Your task to perform on an android device: clear all cookies in the chrome app Image 0: 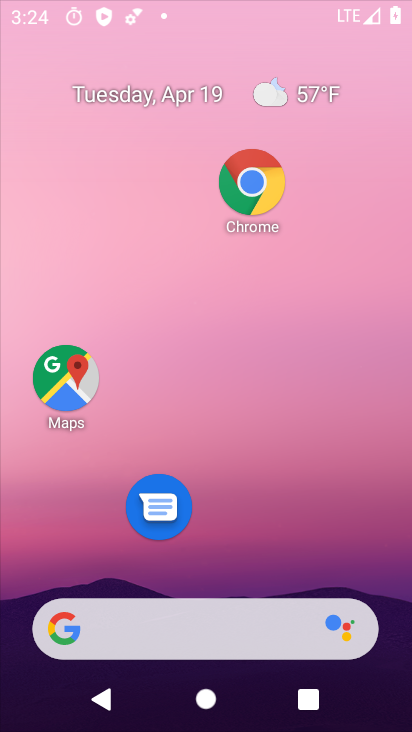
Step 0: drag from (334, 541) to (395, 84)
Your task to perform on an android device: clear all cookies in the chrome app Image 1: 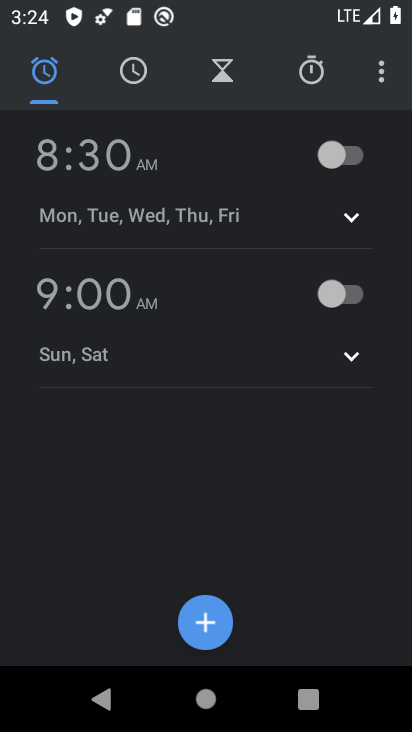
Step 1: press home button
Your task to perform on an android device: clear all cookies in the chrome app Image 2: 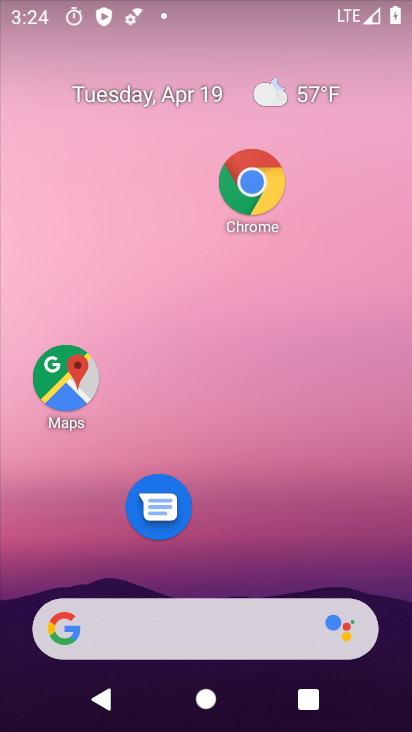
Step 2: drag from (245, 481) to (305, 54)
Your task to perform on an android device: clear all cookies in the chrome app Image 3: 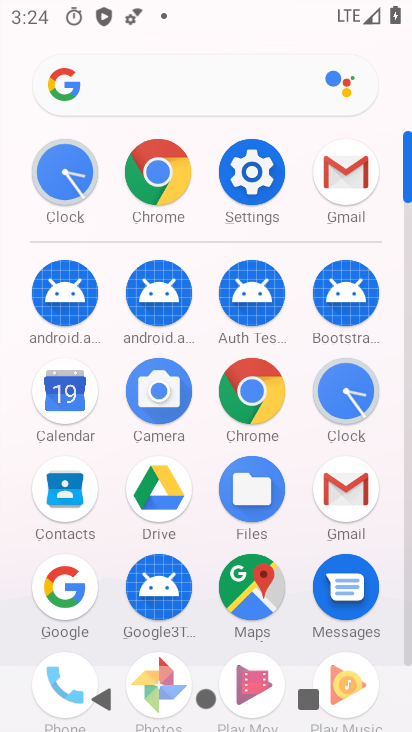
Step 3: click (258, 404)
Your task to perform on an android device: clear all cookies in the chrome app Image 4: 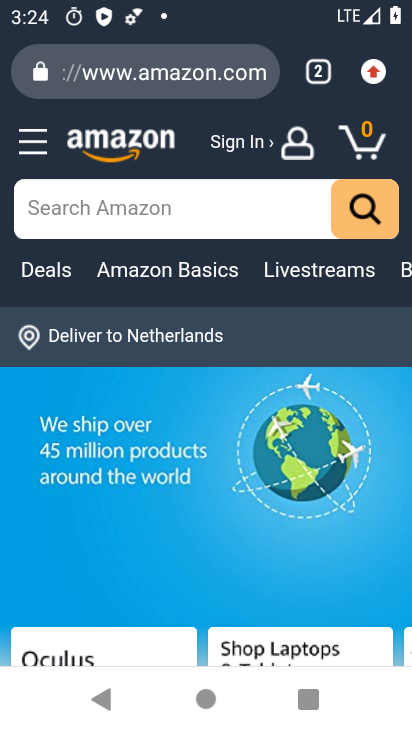
Step 4: click (370, 64)
Your task to perform on an android device: clear all cookies in the chrome app Image 5: 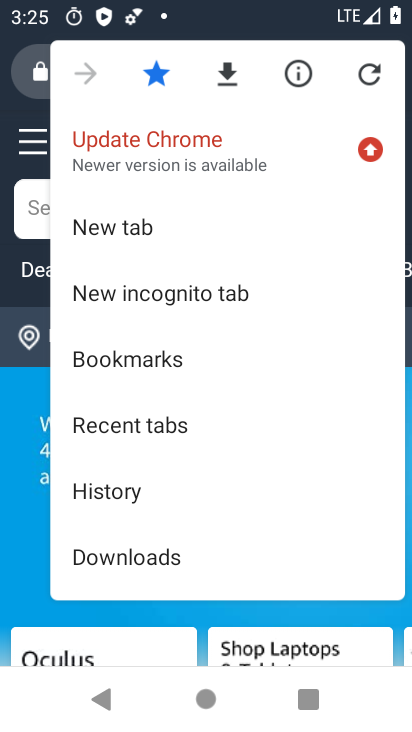
Step 5: click (172, 502)
Your task to perform on an android device: clear all cookies in the chrome app Image 6: 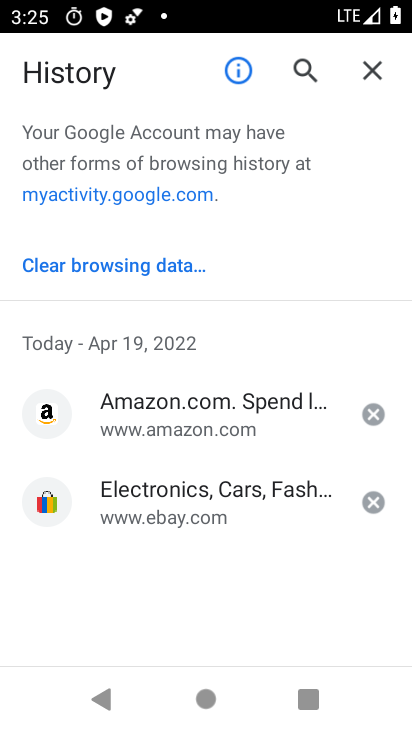
Step 6: click (135, 282)
Your task to perform on an android device: clear all cookies in the chrome app Image 7: 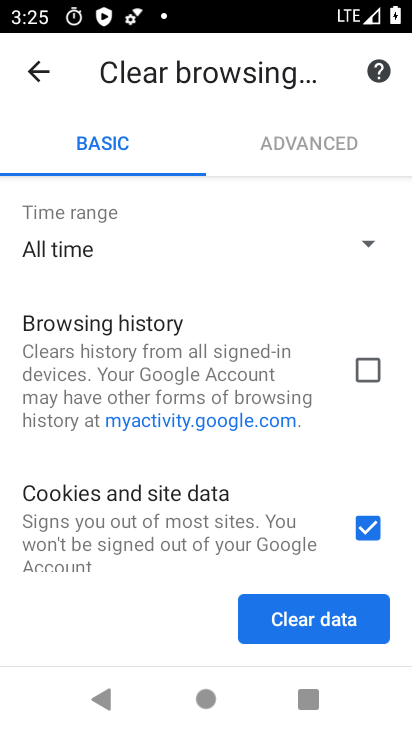
Step 7: click (318, 620)
Your task to perform on an android device: clear all cookies in the chrome app Image 8: 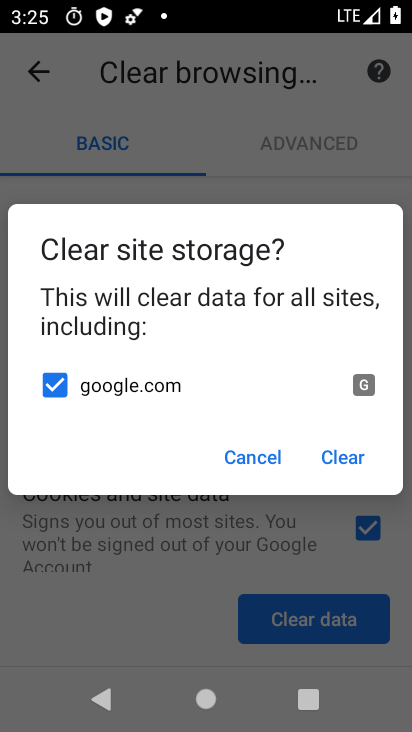
Step 8: click (346, 459)
Your task to perform on an android device: clear all cookies in the chrome app Image 9: 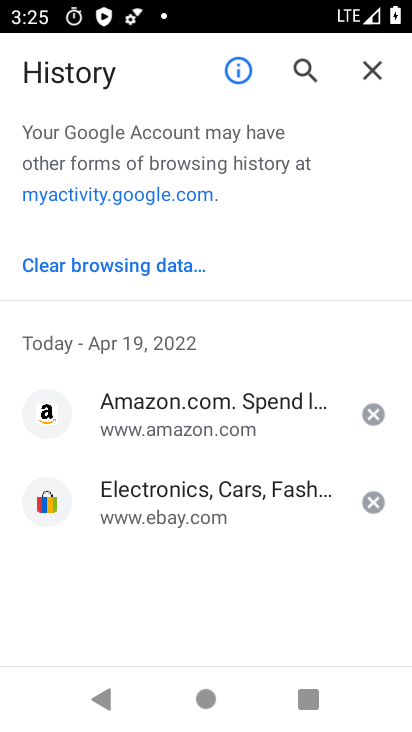
Step 9: task complete